Your task to perform on an android device: What's the weather going to be this weekend? Image 0: 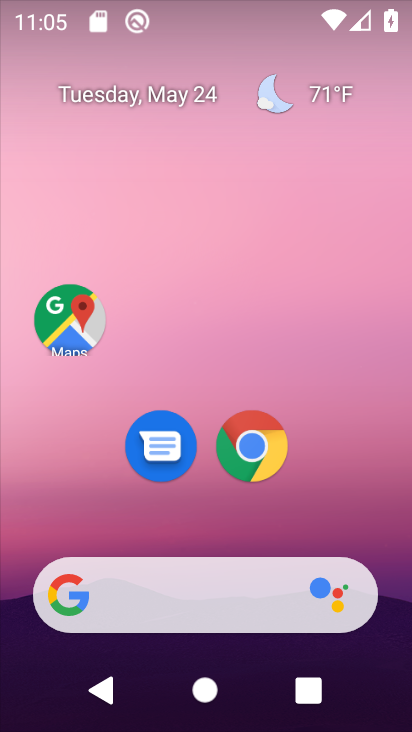
Step 0: drag from (220, 445) to (233, 194)
Your task to perform on an android device: What's the weather going to be this weekend? Image 1: 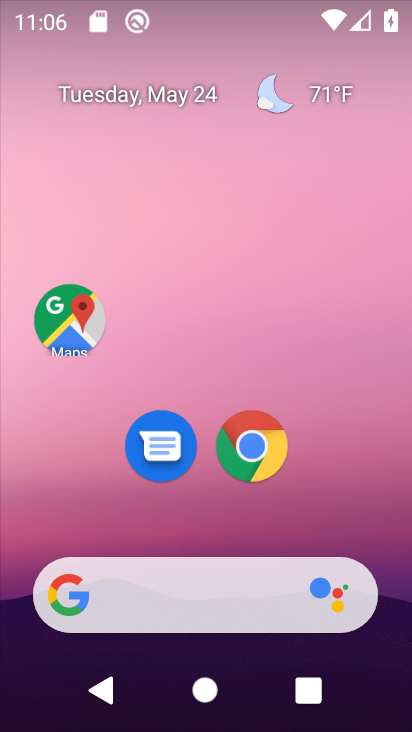
Step 1: drag from (223, 519) to (212, 151)
Your task to perform on an android device: What's the weather going to be this weekend? Image 2: 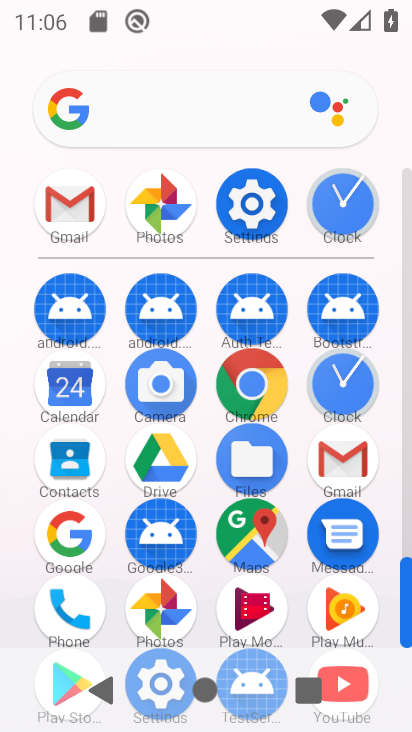
Step 2: drag from (205, 268) to (202, 168)
Your task to perform on an android device: What's the weather going to be this weekend? Image 3: 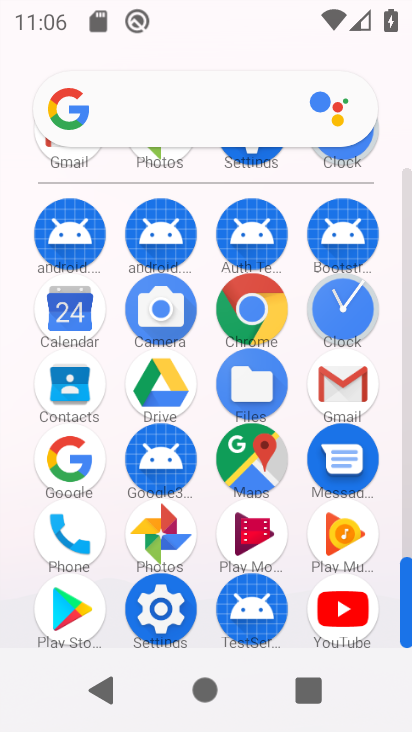
Step 3: click (61, 471)
Your task to perform on an android device: What's the weather going to be this weekend? Image 4: 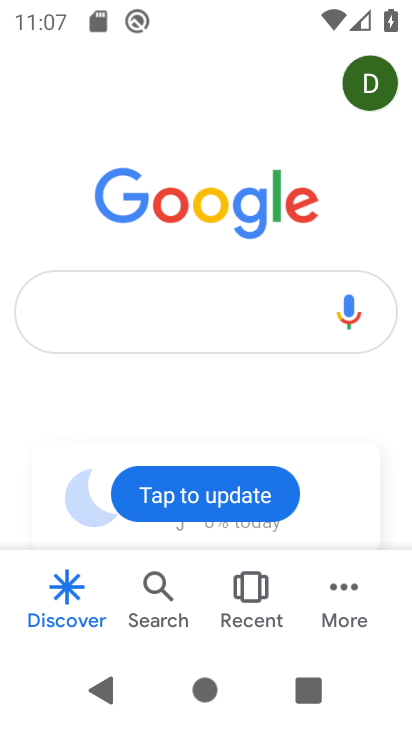
Step 4: drag from (65, 439) to (75, 246)
Your task to perform on an android device: What's the weather going to be this weekend? Image 5: 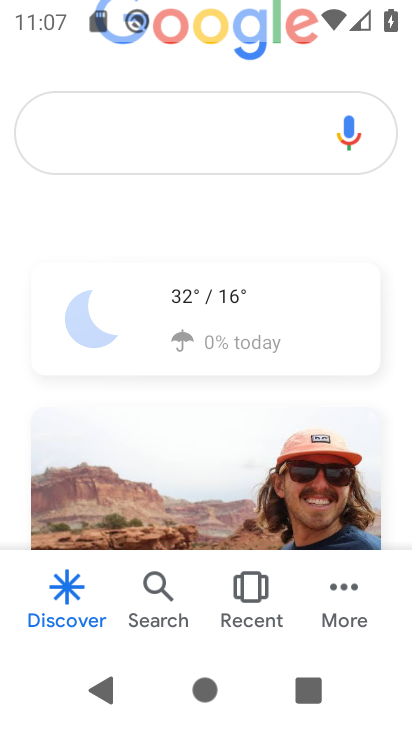
Step 5: click (177, 304)
Your task to perform on an android device: What's the weather going to be this weekend? Image 6: 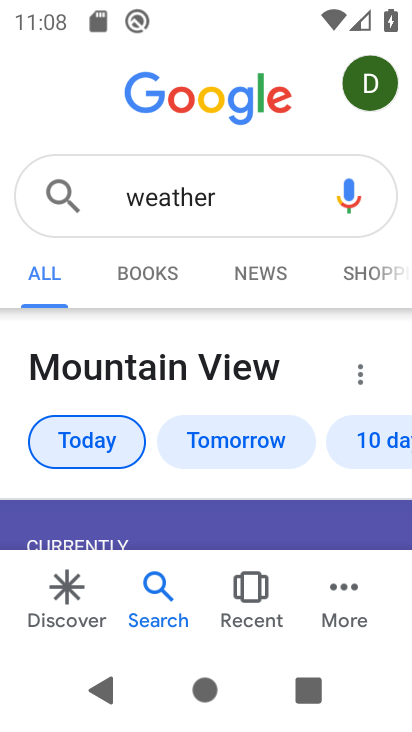
Step 6: click (356, 447)
Your task to perform on an android device: What's the weather going to be this weekend? Image 7: 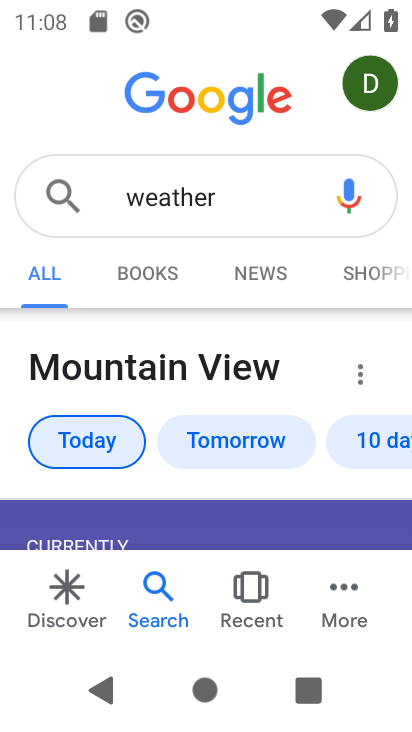
Step 7: task complete